Your task to perform on an android device: Open internet settings Image 0: 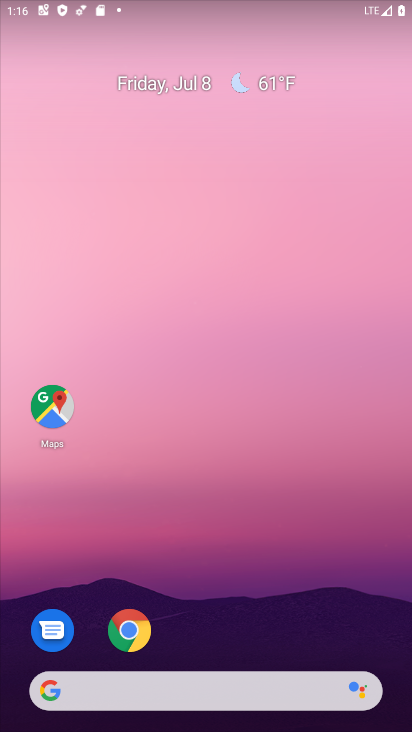
Step 0: drag from (393, 661) to (267, 25)
Your task to perform on an android device: Open internet settings Image 1: 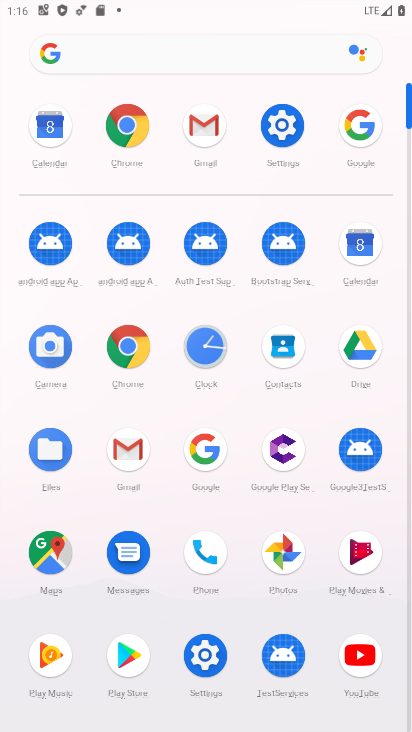
Step 1: click (202, 662)
Your task to perform on an android device: Open internet settings Image 2: 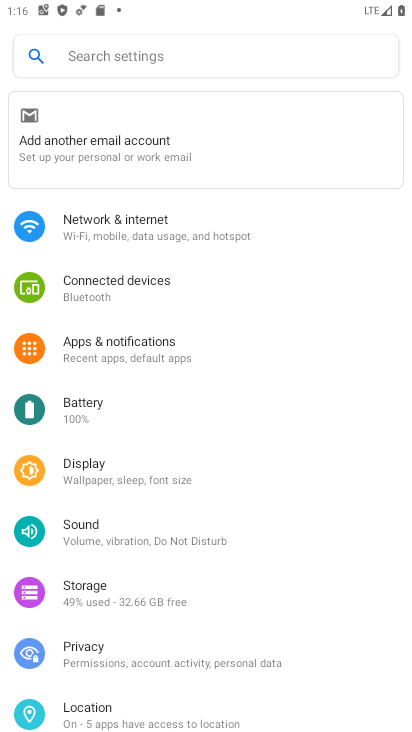
Step 2: click (166, 230)
Your task to perform on an android device: Open internet settings Image 3: 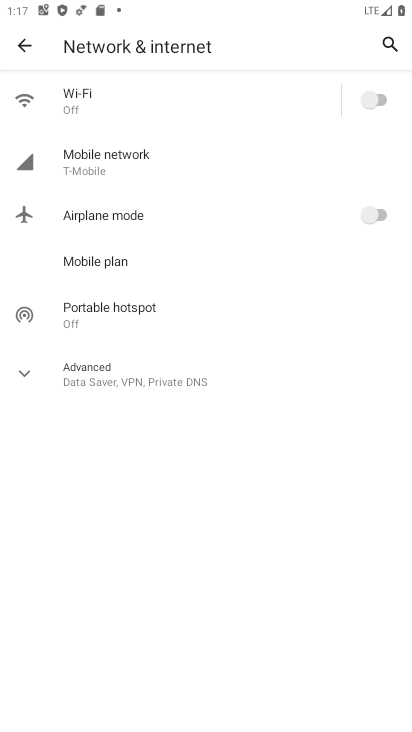
Step 3: task complete